Your task to perform on an android device: set an alarm Image 0: 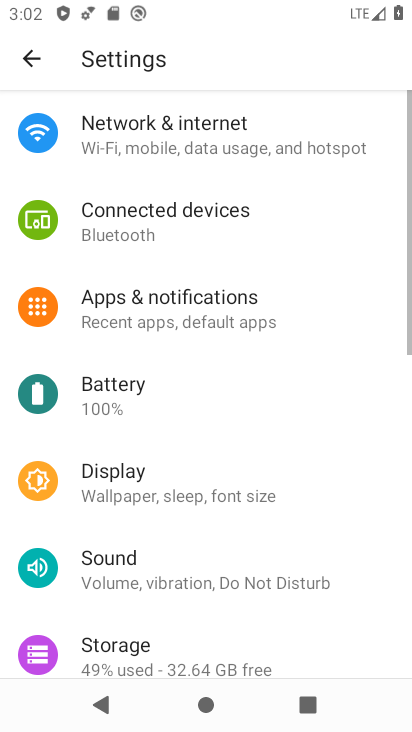
Step 0: press back button
Your task to perform on an android device: set an alarm Image 1: 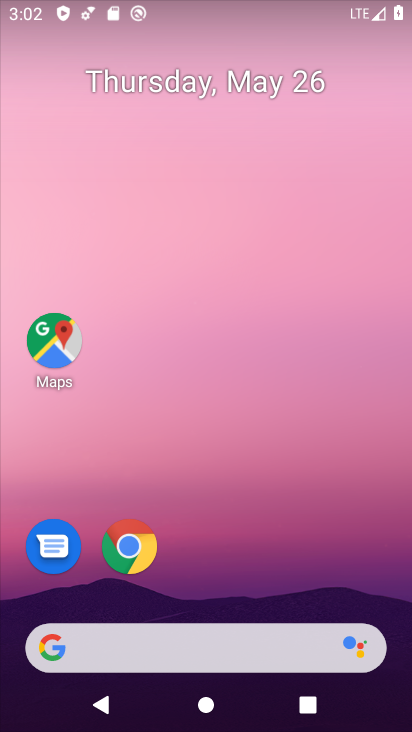
Step 1: drag from (233, 536) to (334, 96)
Your task to perform on an android device: set an alarm Image 2: 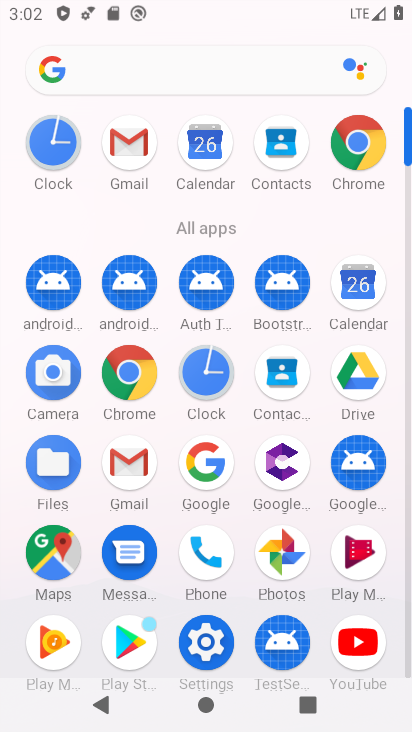
Step 2: click (199, 372)
Your task to perform on an android device: set an alarm Image 3: 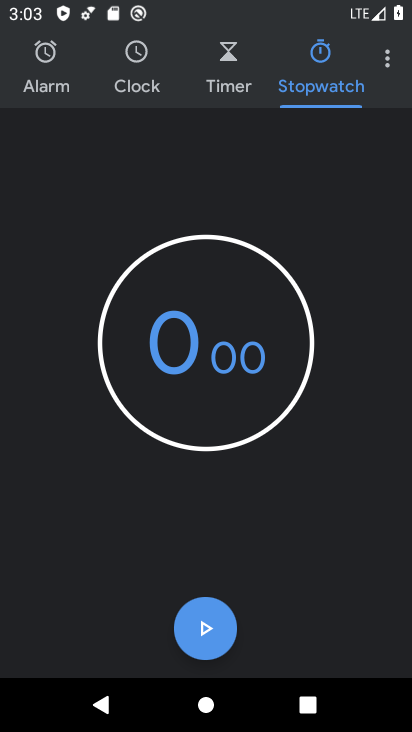
Step 3: click (60, 73)
Your task to perform on an android device: set an alarm Image 4: 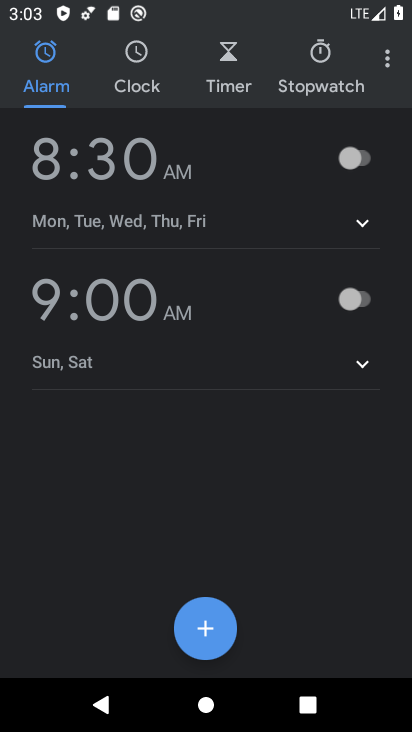
Step 4: click (349, 154)
Your task to perform on an android device: set an alarm Image 5: 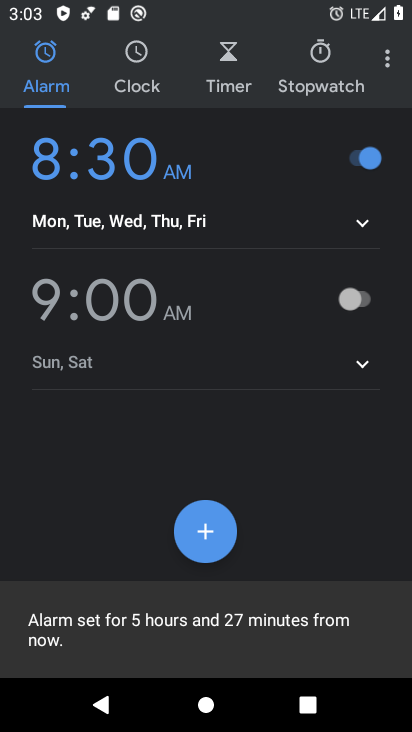
Step 5: task complete